Your task to perform on an android device: Open Android settings Image 0: 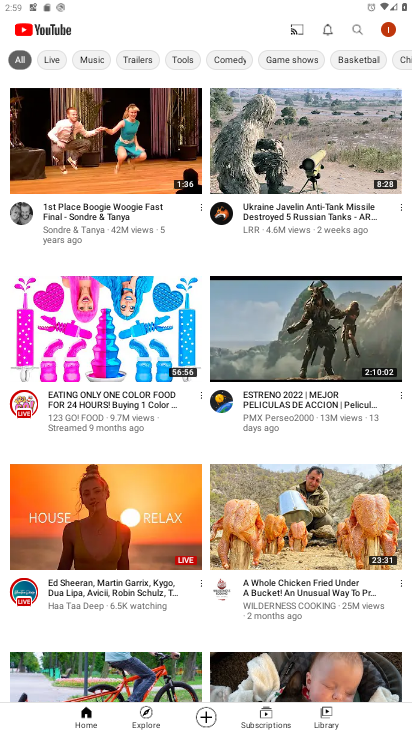
Step 0: drag from (196, 198) to (245, 709)
Your task to perform on an android device: Open Android settings Image 1: 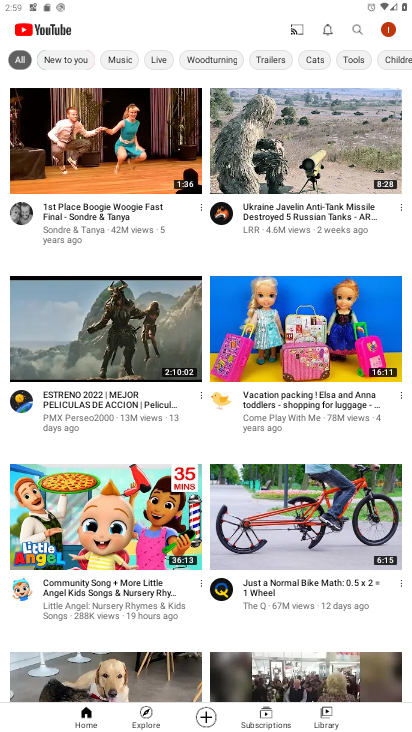
Step 1: press home button
Your task to perform on an android device: Open Android settings Image 2: 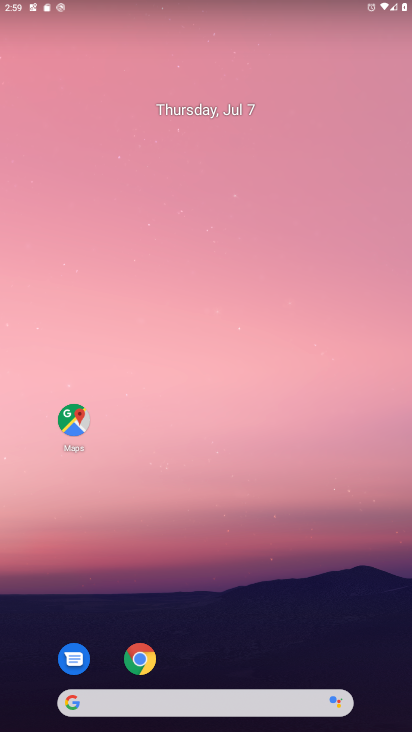
Step 2: drag from (194, 627) to (287, 144)
Your task to perform on an android device: Open Android settings Image 3: 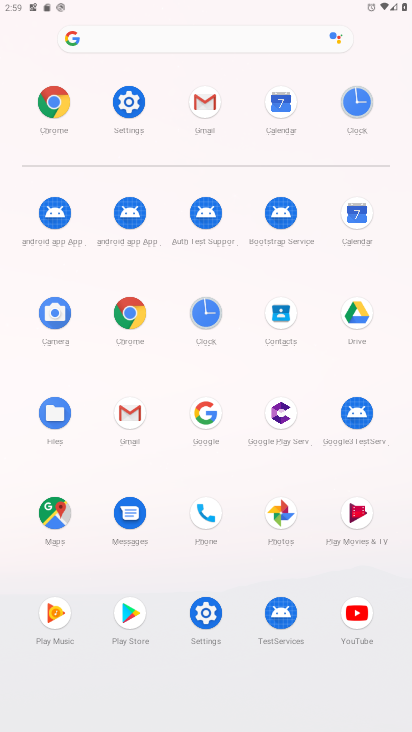
Step 3: click (123, 100)
Your task to perform on an android device: Open Android settings Image 4: 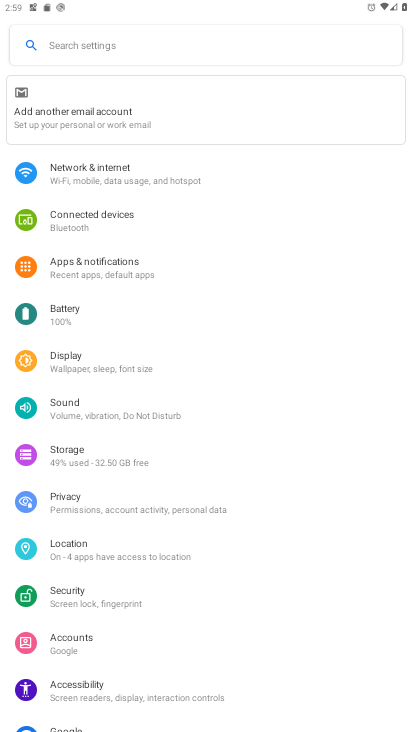
Step 4: drag from (207, 588) to (223, 274)
Your task to perform on an android device: Open Android settings Image 5: 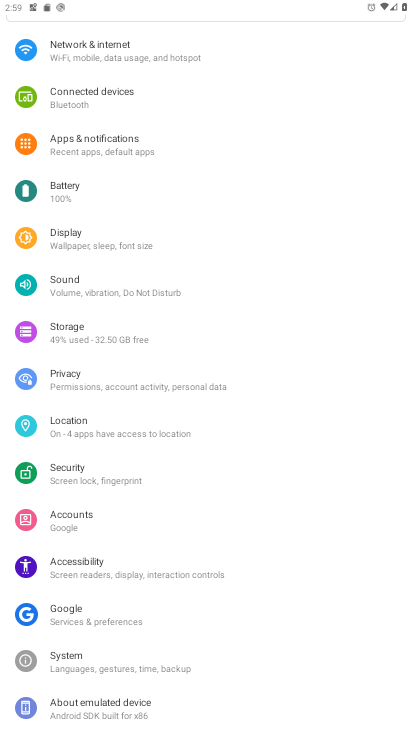
Step 5: drag from (171, 712) to (210, 288)
Your task to perform on an android device: Open Android settings Image 6: 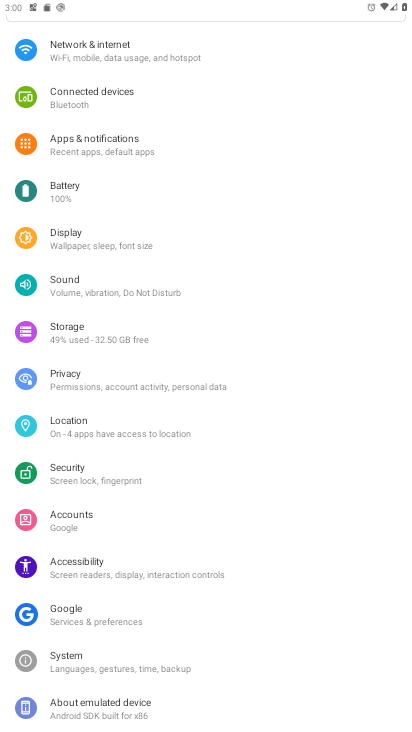
Step 6: click (145, 701)
Your task to perform on an android device: Open Android settings Image 7: 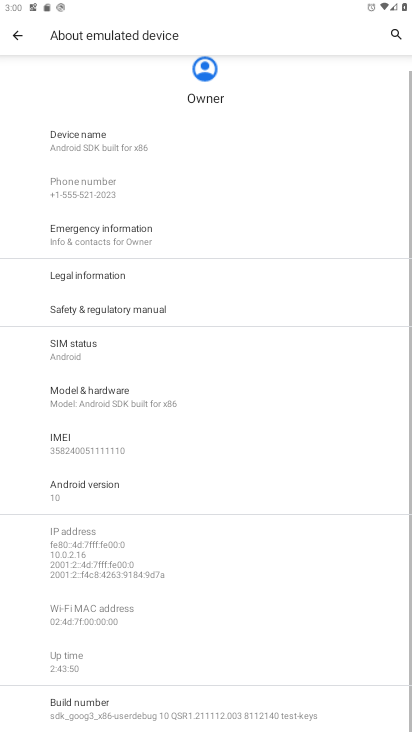
Step 7: drag from (189, 210) to (244, 486)
Your task to perform on an android device: Open Android settings Image 8: 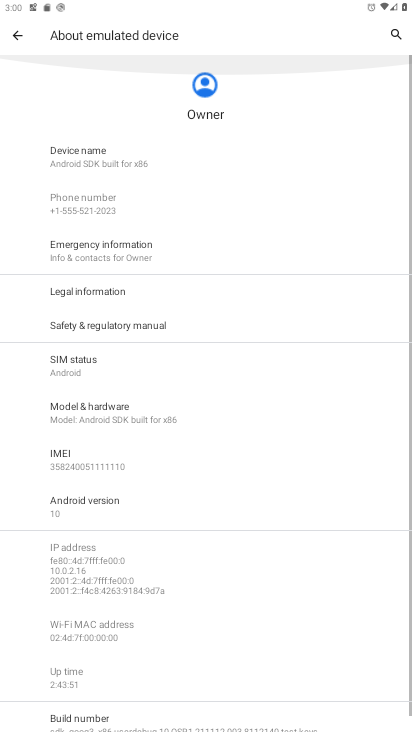
Step 8: drag from (244, 486) to (321, 226)
Your task to perform on an android device: Open Android settings Image 9: 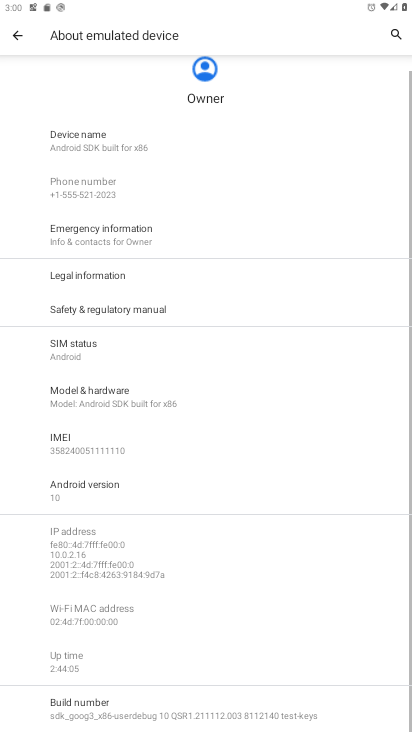
Step 9: click (122, 494)
Your task to perform on an android device: Open Android settings Image 10: 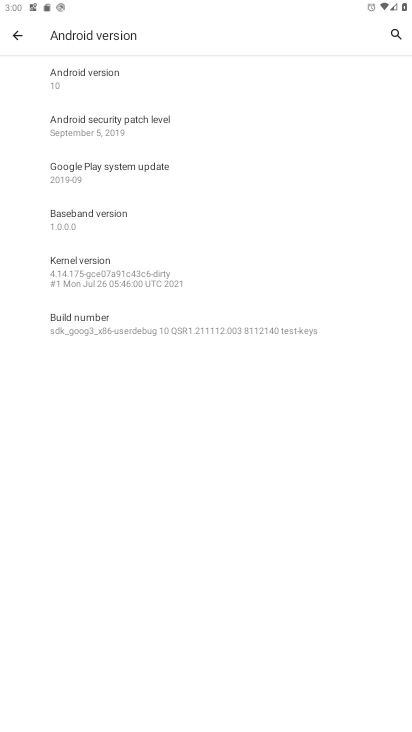
Step 10: task complete